Your task to perform on an android device: open app "Google Play Games" Image 0: 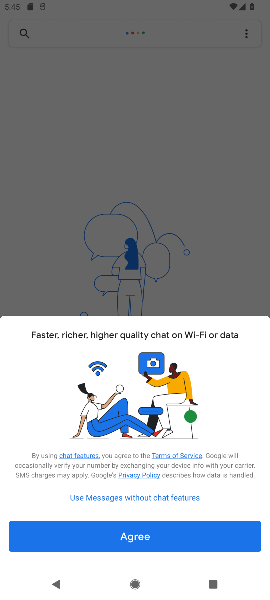
Step 0: press home button
Your task to perform on an android device: open app "Google Play Games" Image 1: 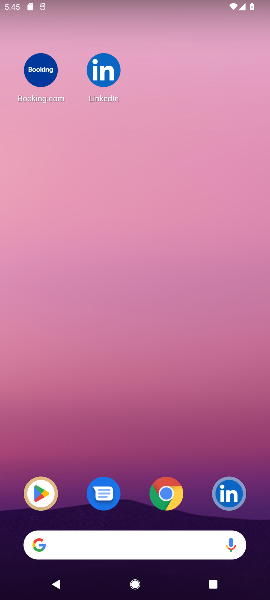
Step 1: drag from (153, 531) to (134, 377)
Your task to perform on an android device: open app "Google Play Games" Image 2: 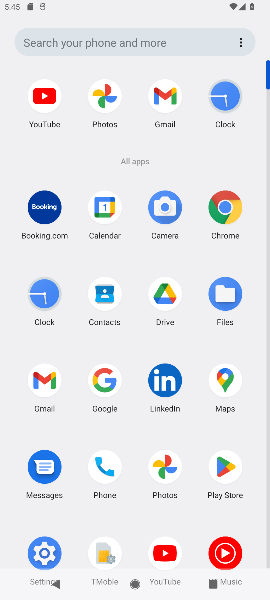
Step 2: click (223, 464)
Your task to perform on an android device: open app "Google Play Games" Image 3: 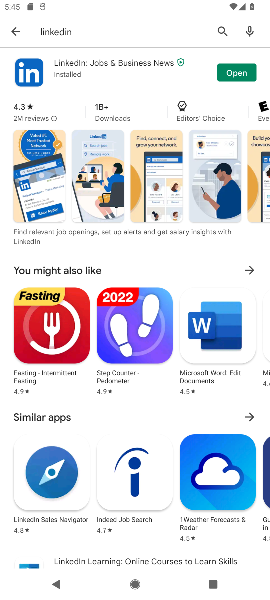
Step 3: click (221, 29)
Your task to perform on an android device: open app "Google Play Games" Image 4: 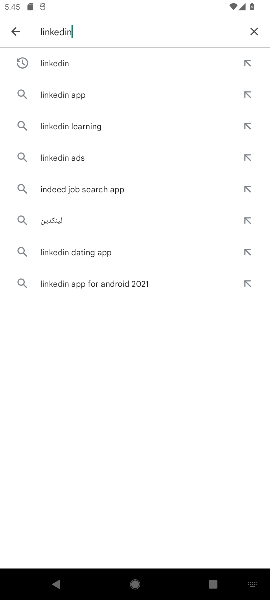
Step 4: click (252, 31)
Your task to perform on an android device: open app "Google Play Games" Image 5: 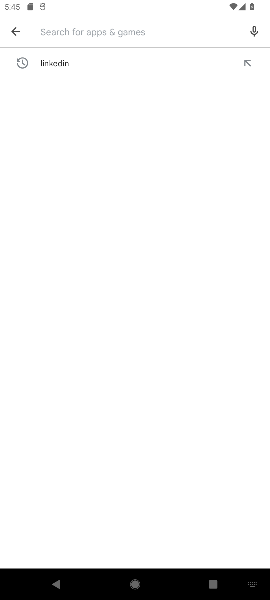
Step 5: type "Google Play Games"
Your task to perform on an android device: open app "Google Play Games" Image 6: 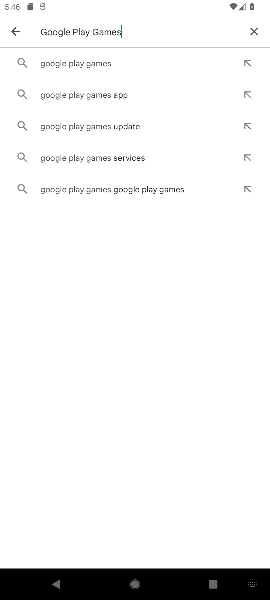
Step 6: click (82, 61)
Your task to perform on an android device: open app "Google Play Games" Image 7: 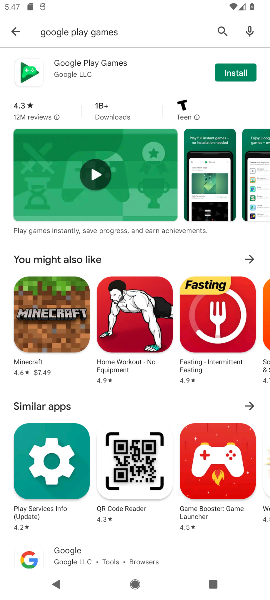
Step 7: click (247, 76)
Your task to perform on an android device: open app "Google Play Games" Image 8: 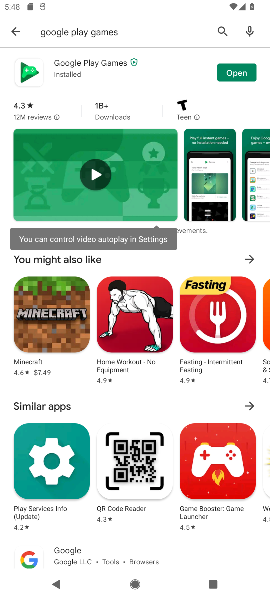
Step 8: click (226, 70)
Your task to perform on an android device: open app "Google Play Games" Image 9: 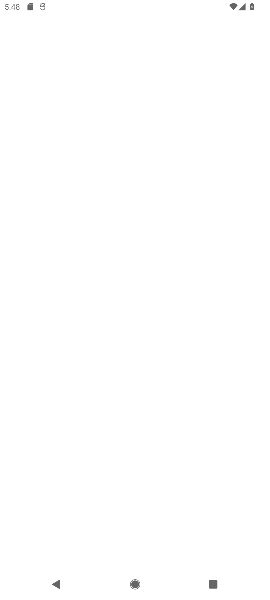
Step 9: task complete